Your task to perform on an android device: find snoozed emails in the gmail app Image 0: 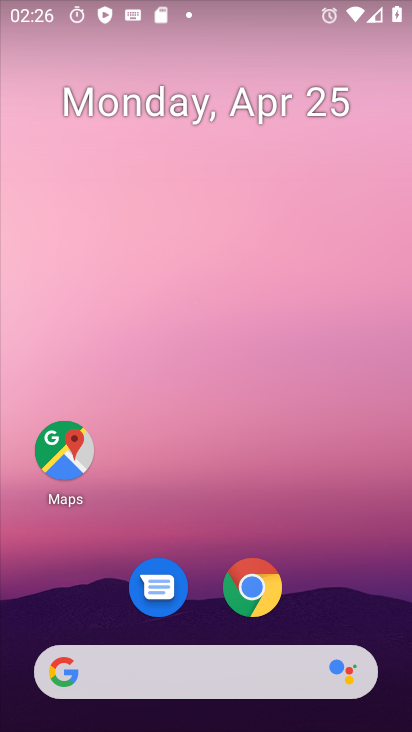
Step 0: drag from (300, 409) to (304, 145)
Your task to perform on an android device: find snoozed emails in the gmail app Image 1: 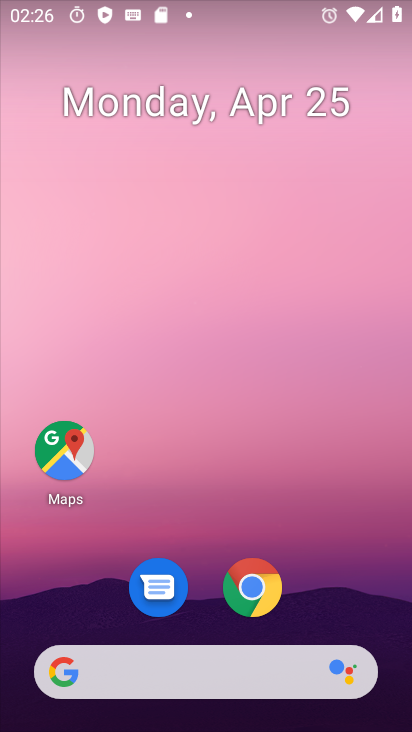
Step 1: drag from (340, 545) to (289, 75)
Your task to perform on an android device: find snoozed emails in the gmail app Image 2: 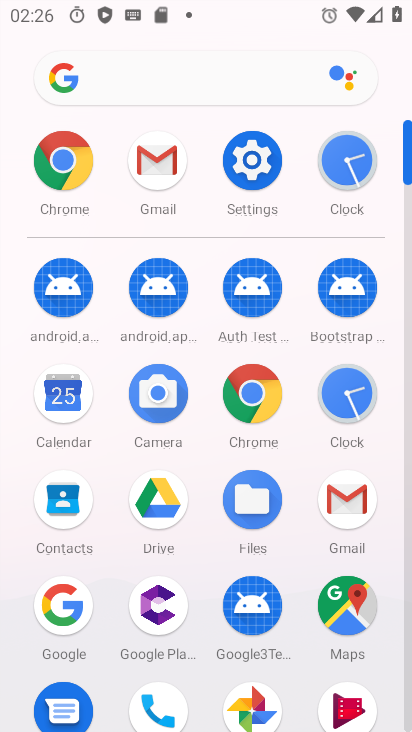
Step 2: click (361, 501)
Your task to perform on an android device: find snoozed emails in the gmail app Image 3: 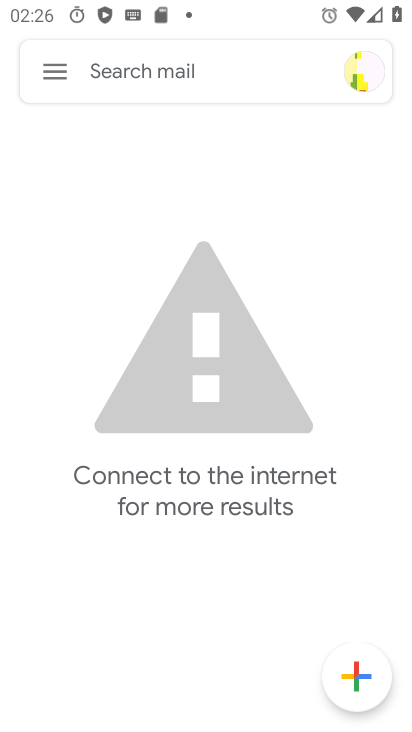
Step 3: click (42, 61)
Your task to perform on an android device: find snoozed emails in the gmail app Image 4: 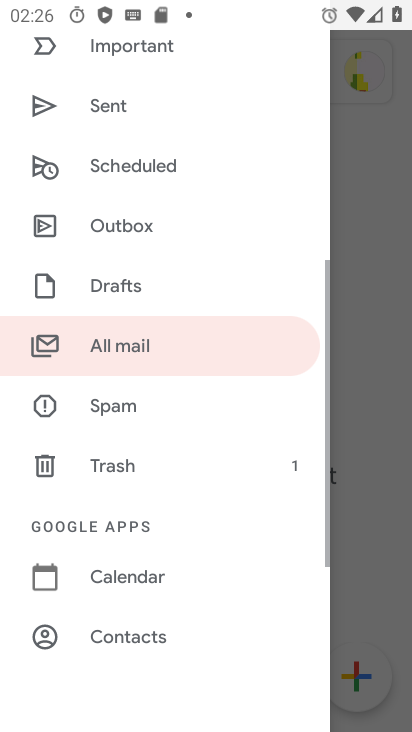
Step 4: drag from (176, 170) to (205, 590)
Your task to perform on an android device: find snoozed emails in the gmail app Image 5: 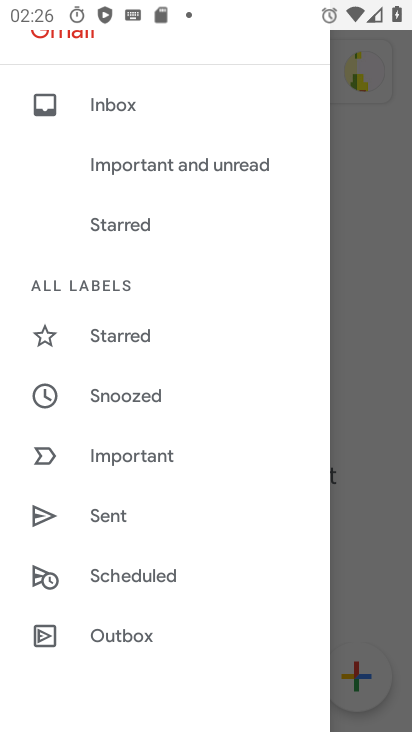
Step 5: drag from (193, 328) to (196, 582)
Your task to perform on an android device: find snoozed emails in the gmail app Image 6: 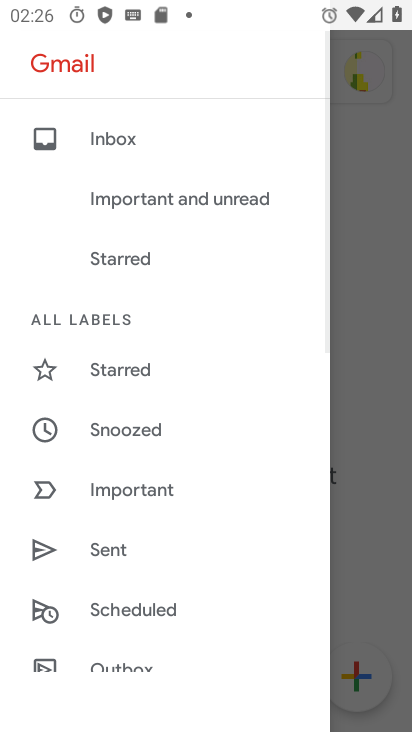
Step 6: drag from (191, 522) to (195, 396)
Your task to perform on an android device: find snoozed emails in the gmail app Image 7: 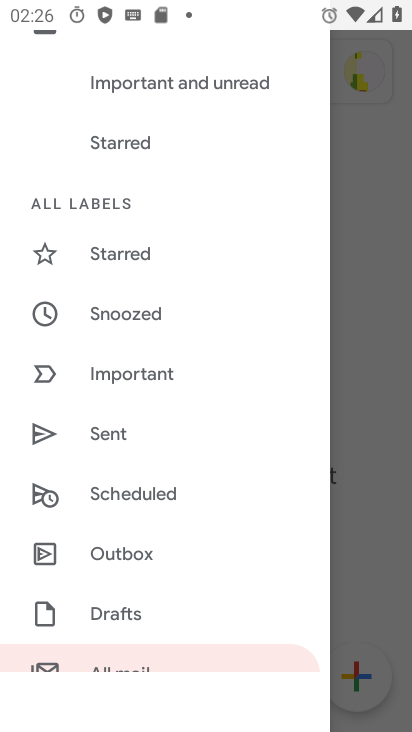
Step 7: click (128, 302)
Your task to perform on an android device: find snoozed emails in the gmail app Image 8: 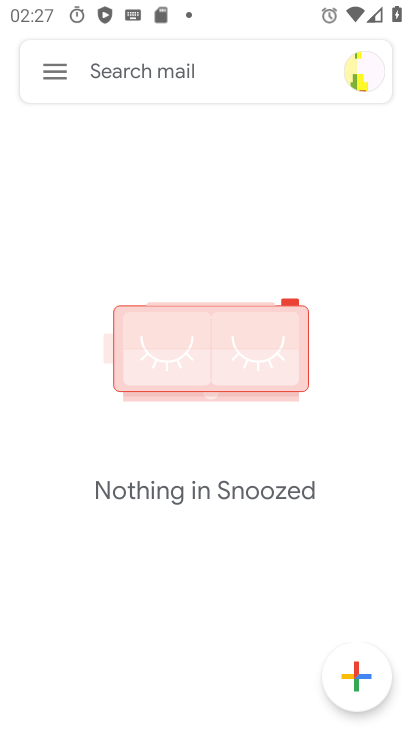
Step 8: task complete